Your task to perform on an android device: visit the assistant section in the google photos Image 0: 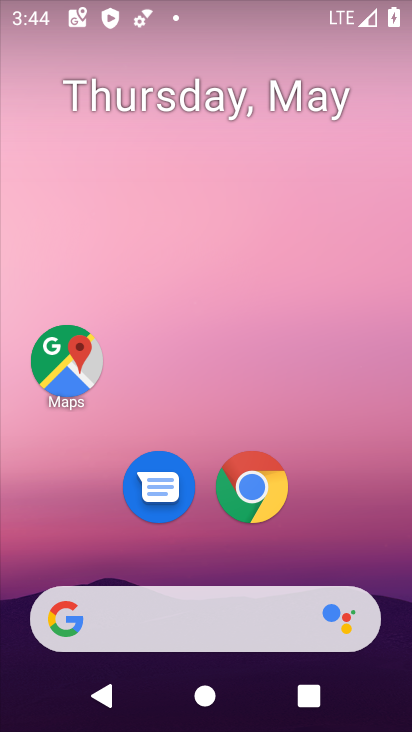
Step 0: drag from (210, 665) to (284, 25)
Your task to perform on an android device: visit the assistant section in the google photos Image 1: 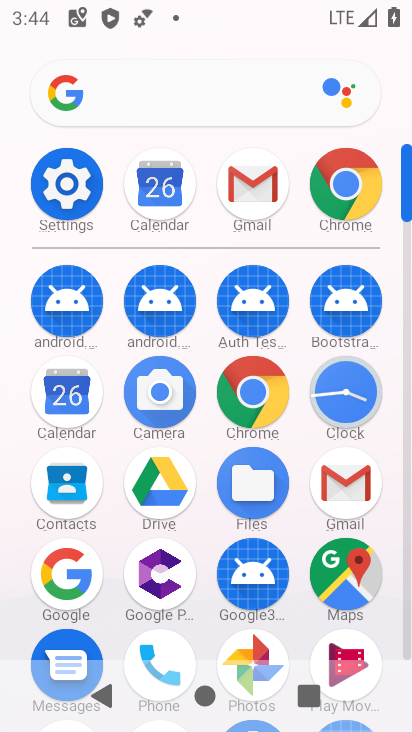
Step 1: drag from (275, 473) to (266, 284)
Your task to perform on an android device: visit the assistant section in the google photos Image 2: 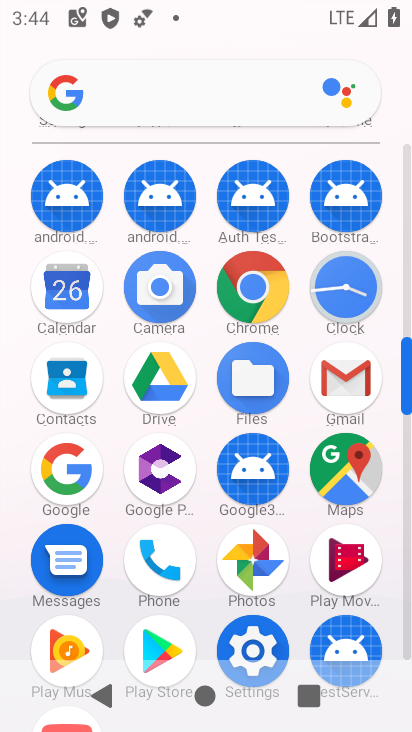
Step 2: click (245, 566)
Your task to perform on an android device: visit the assistant section in the google photos Image 3: 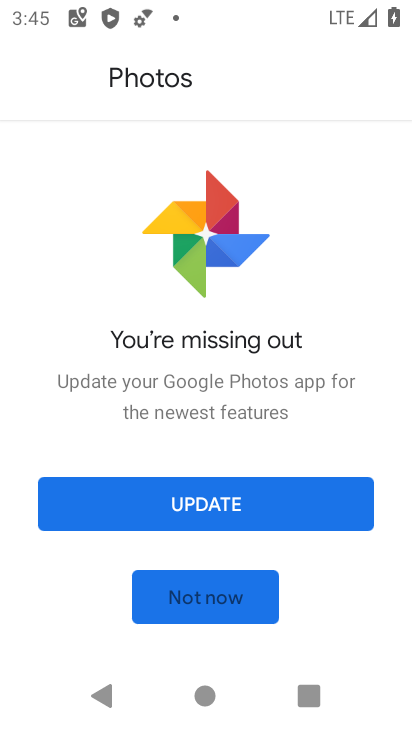
Step 3: click (260, 603)
Your task to perform on an android device: visit the assistant section in the google photos Image 4: 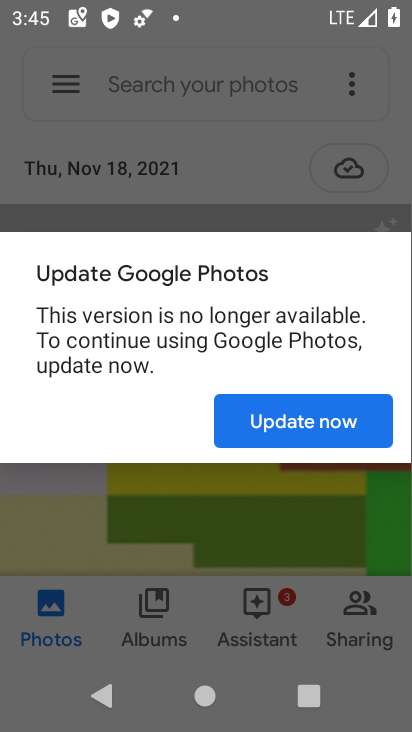
Step 4: task complete